Your task to perform on an android device: add a contact Image 0: 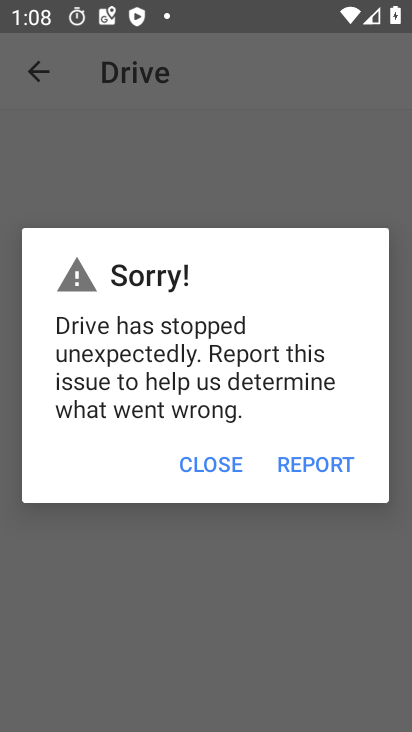
Step 0: press home button
Your task to perform on an android device: add a contact Image 1: 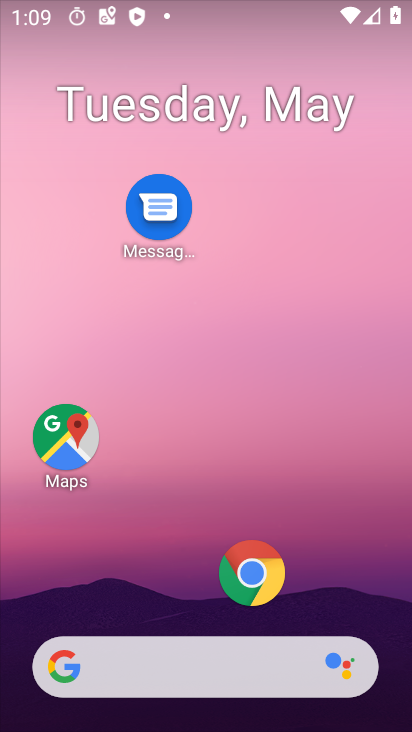
Step 1: drag from (171, 506) to (199, 46)
Your task to perform on an android device: add a contact Image 2: 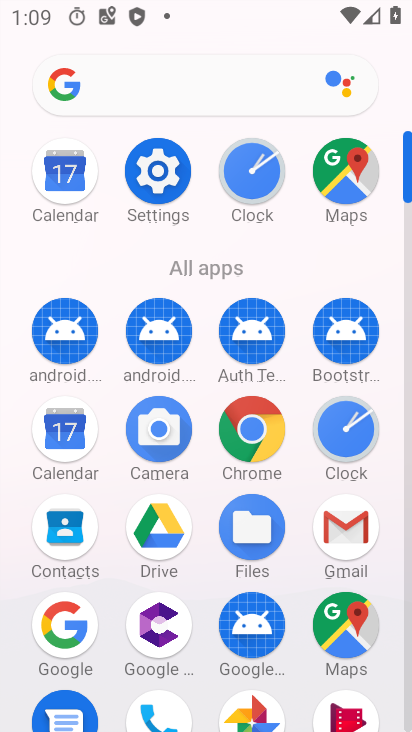
Step 2: click (80, 539)
Your task to perform on an android device: add a contact Image 3: 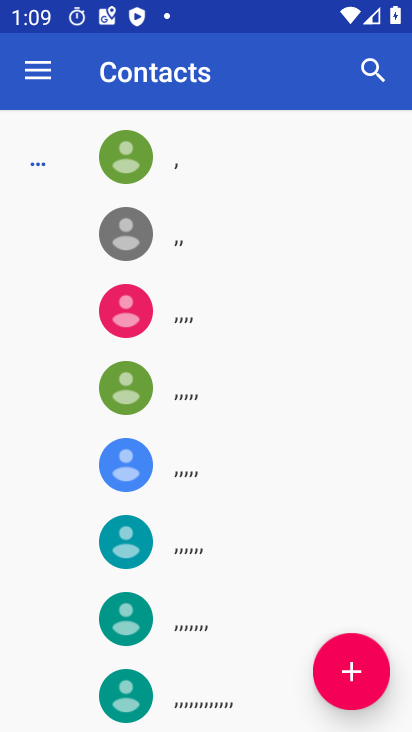
Step 3: click (347, 666)
Your task to perform on an android device: add a contact Image 4: 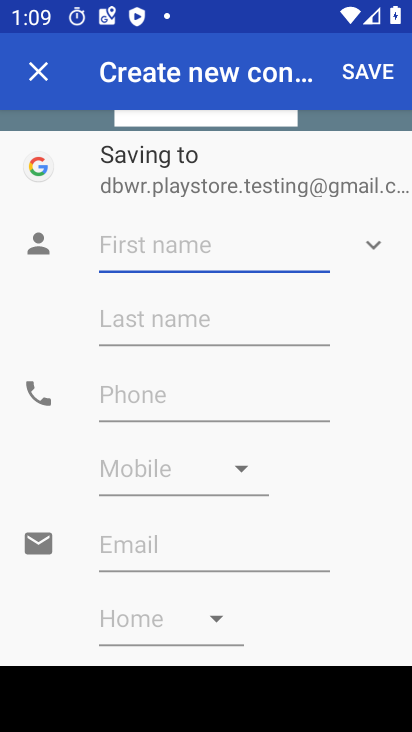
Step 4: type "graver"
Your task to perform on an android device: add a contact Image 5: 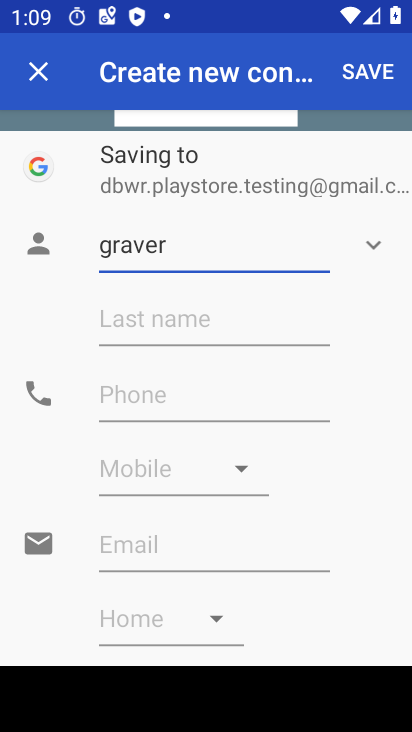
Step 5: click (372, 68)
Your task to perform on an android device: add a contact Image 6: 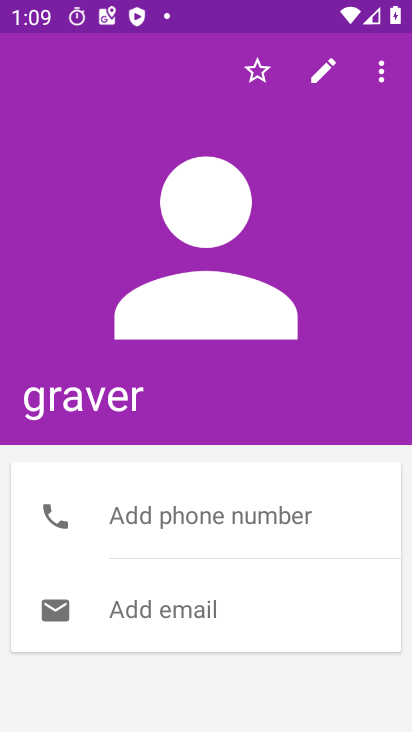
Step 6: task complete